Your task to perform on an android device: search for starred emails in the gmail app Image 0: 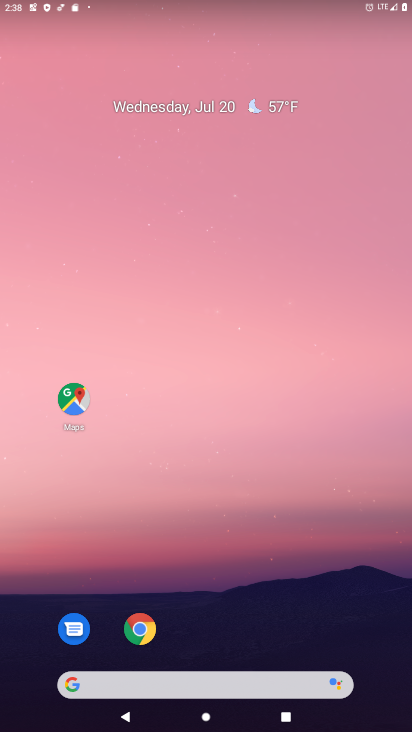
Step 0: drag from (389, 664) to (371, 135)
Your task to perform on an android device: search for starred emails in the gmail app Image 1: 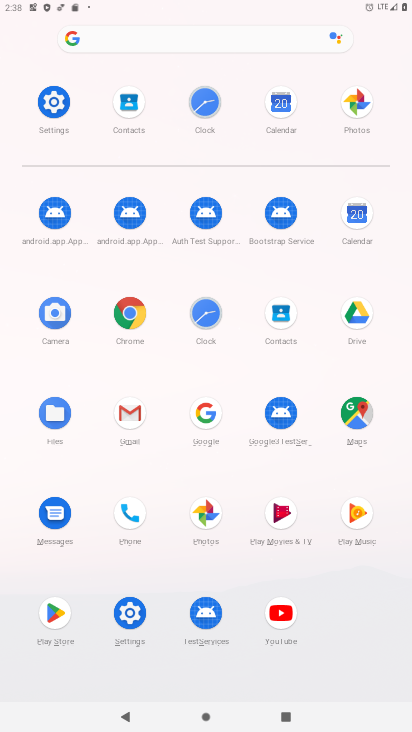
Step 1: click (128, 414)
Your task to perform on an android device: search for starred emails in the gmail app Image 2: 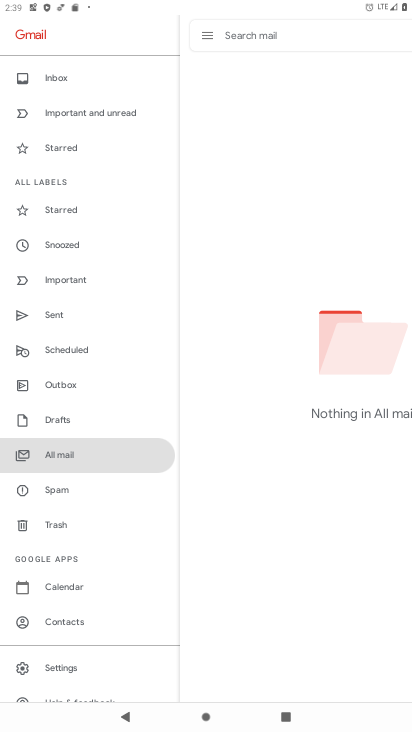
Step 2: click (55, 206)
Your task to perform on an android device: search for starred emails in the gmail app Image 3: 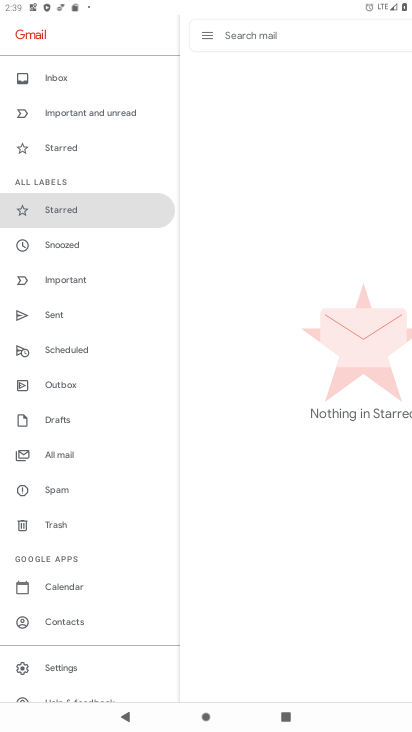
Step 3: task complete